Your task to perform on an android device: Open ESPN.com Image 0: 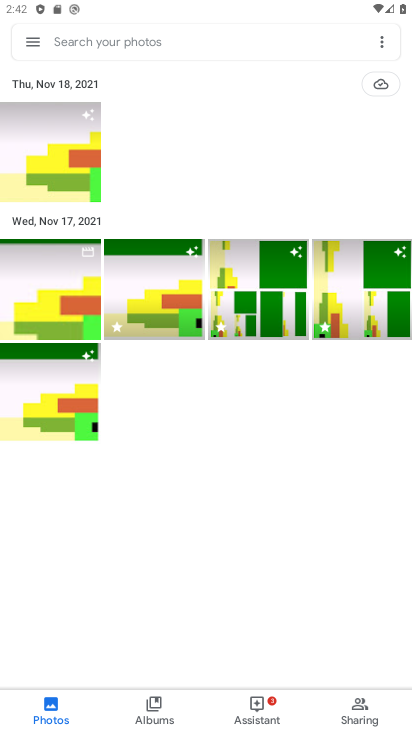
Step 0: press home button
Your task to perform on an android device: Open ESPN.com Image 1: 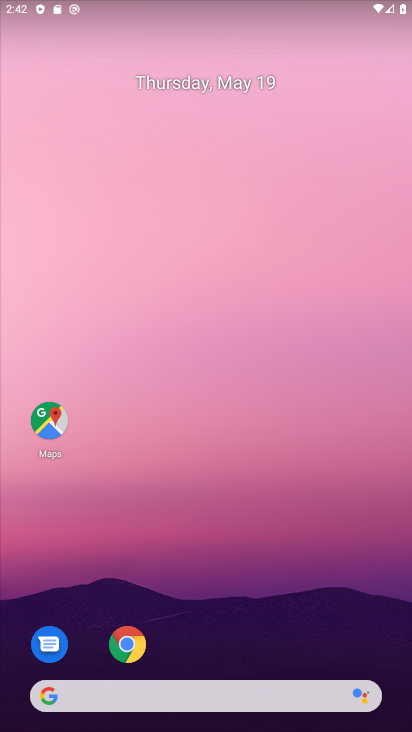
Step 1: click (131, 630)
Your task to perform on an android device: Open ESPN.com Image 2: 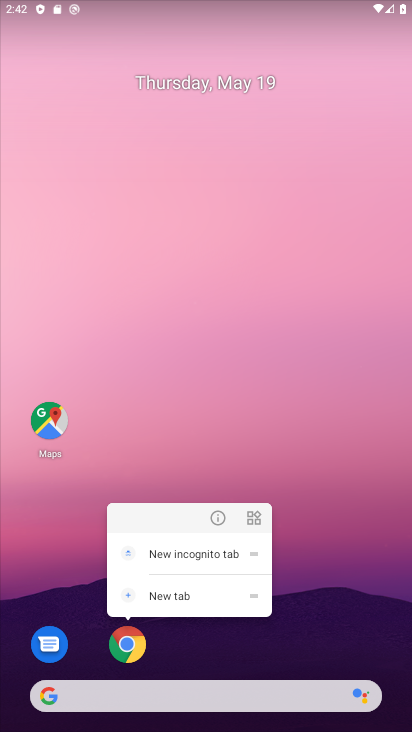
Step 2: click (123, 643)
Your task to perform on an android device: Open ESPN.com Image 3: 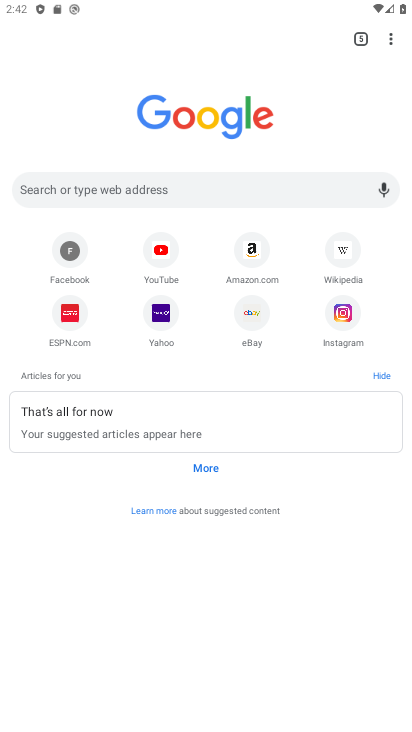
Step 3: click (68, 312)
Your task to perform on an android device: Open ESPN.com Image 4: 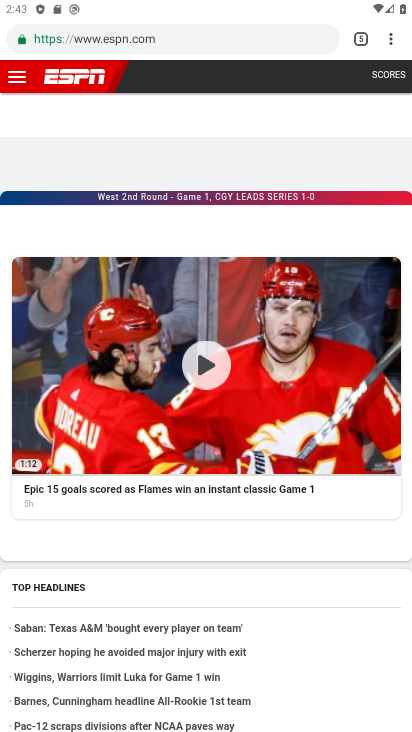
Step 4: task complete